Your task to perform on an android device: turn off javascript in the chrome app Image 0: 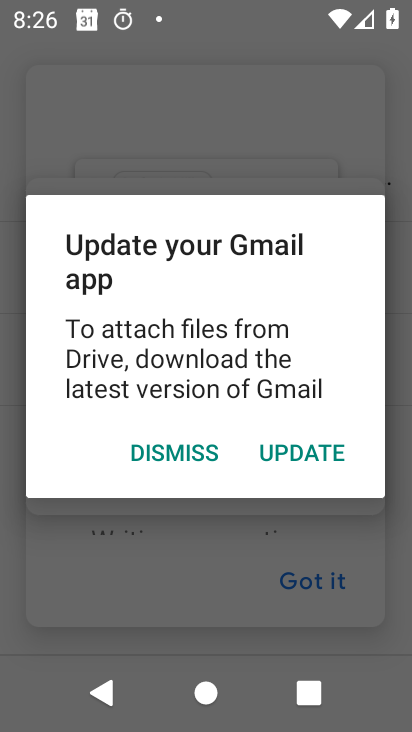
Step 0: press home button
Your task to perform on an android device: turn off javascript in the chrome app Image 1: 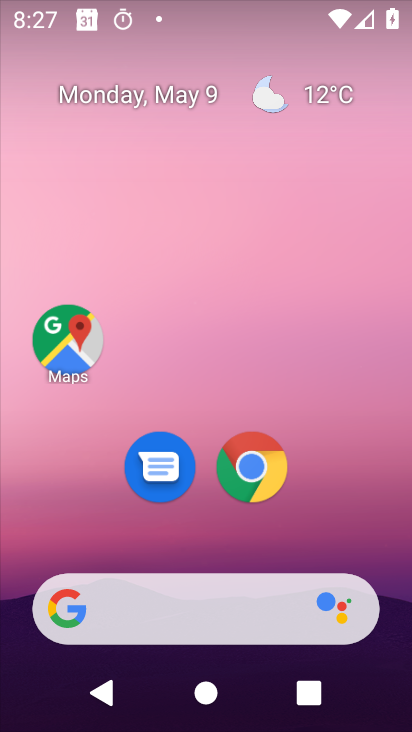
Step 1: click (248, 472)
Your task to perform on an android device: turn off javascript in the chrome app Image 2: 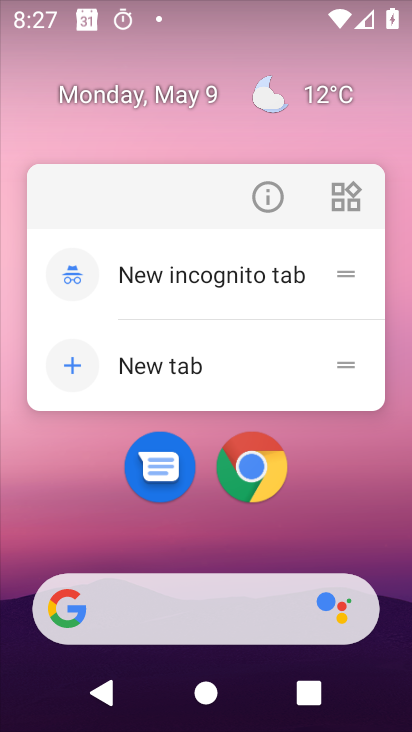
Step 2: click (257, 473)
Your task to perform on an android device: turn off javascript in the chrome app Image 3: 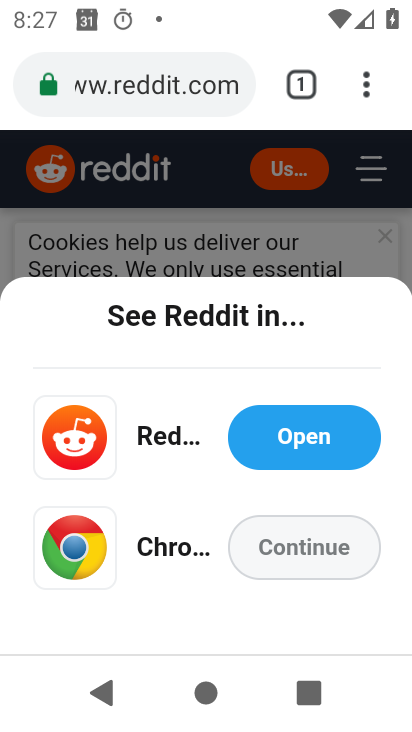
Step 3: click (368, 79)
Your task to perform on an android device: turn off javascript in the chrome app Image 4: 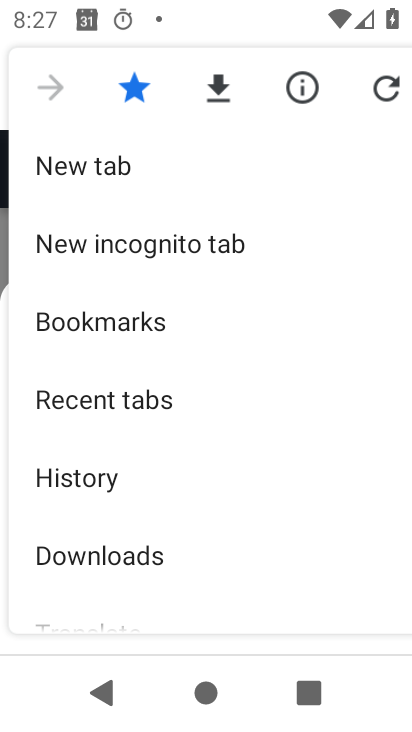
Step 4: drag from (248, 524) to (218, 199)
Your task to perform on an android device: turn off javascript in the chrome app Image 5: 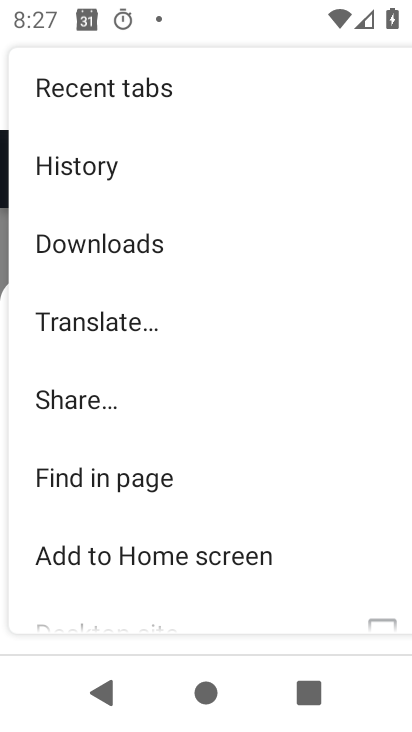
Step 5: drag from (218, 530) to (208, 204)
Your task to perform on an android device: turn off javascript in the chrome app Image 6: 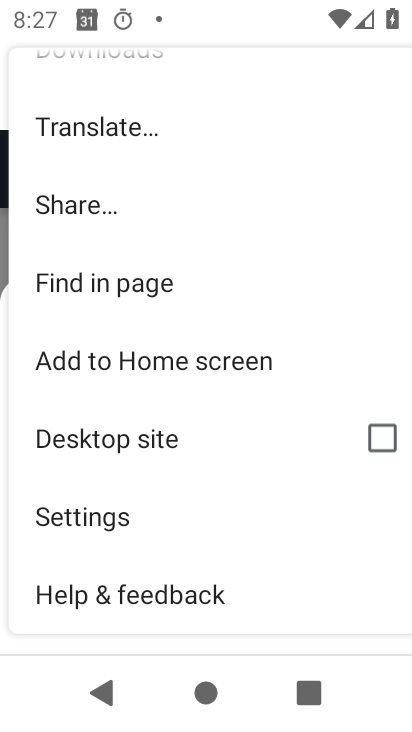
Step 6: click (96, 519)
Your task to perform on an android device: turn off javascript in the chrome app Image 7: 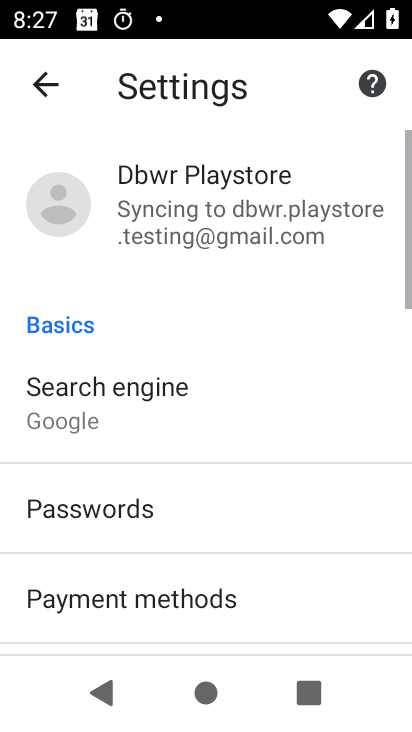
Step 7: drag from (232, 541) to (225, 219)
Your task to perform on an android device: turn off javascript in the chrome app Image 8: 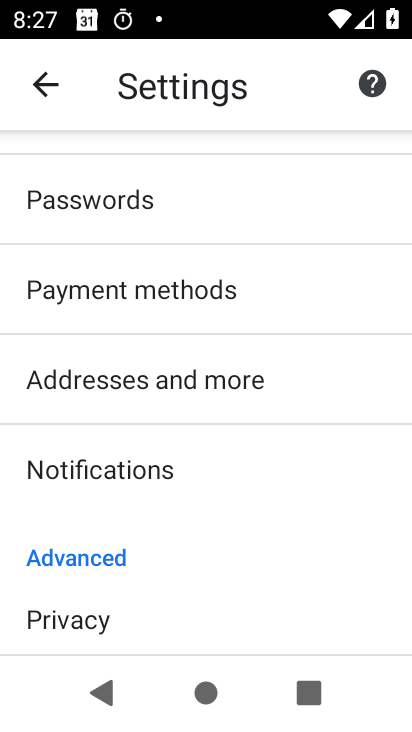
Step 8: drag from (238, 503) to (233, 204)
Your task to perform on an android device: turn off javascript in the chrome app Image 9: 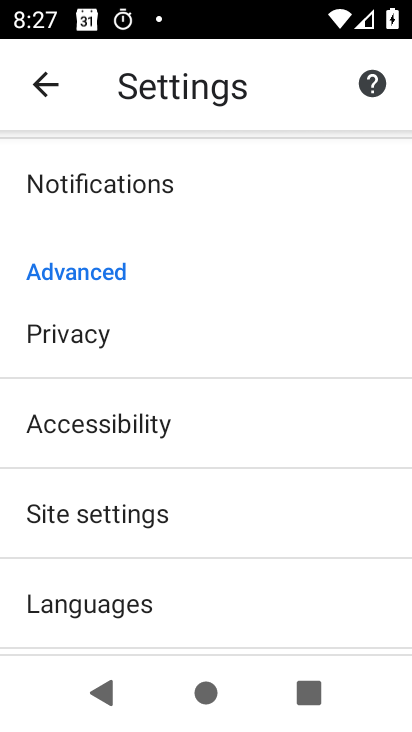
Step 9: click (142, 521)
Your task to perform on an android device: turn off javascript in the chrome app Image 10: 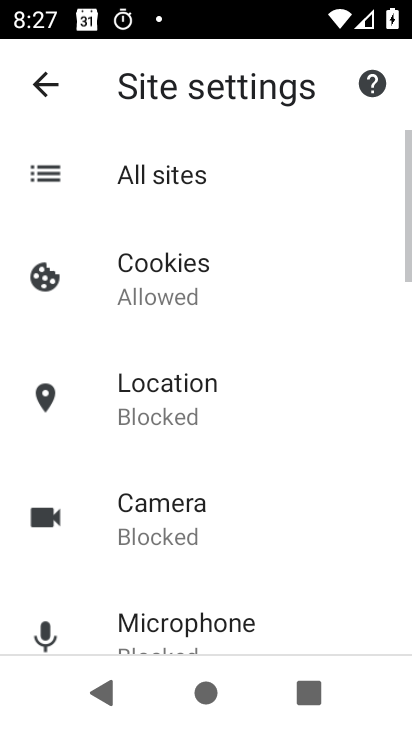
Step 10: drag from (261, 547) to (263, 192)
Your task to perform on an android device: turn off javascript in the chrome app Image 11: 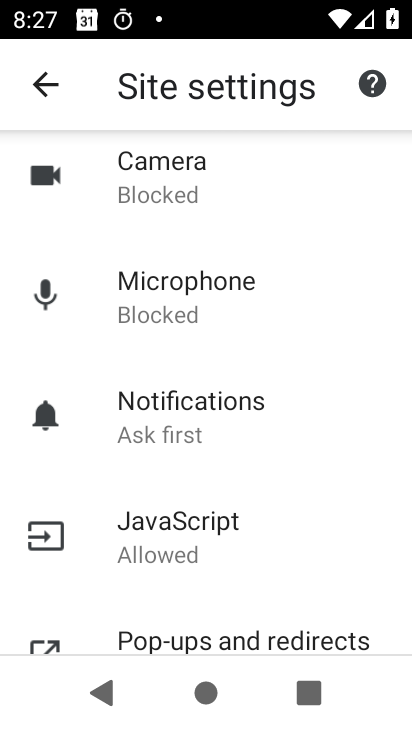
Step 11: click (150, 534)
Your task to perform on an android device: turn off javascript in the chrome app Image 12: 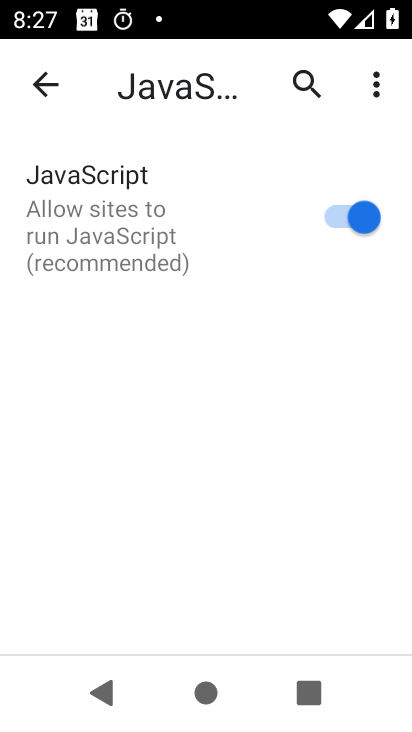
Step 12: click (354, 230)
Your task to perform on an android device: turn off javascript in the chrome app Image 13: 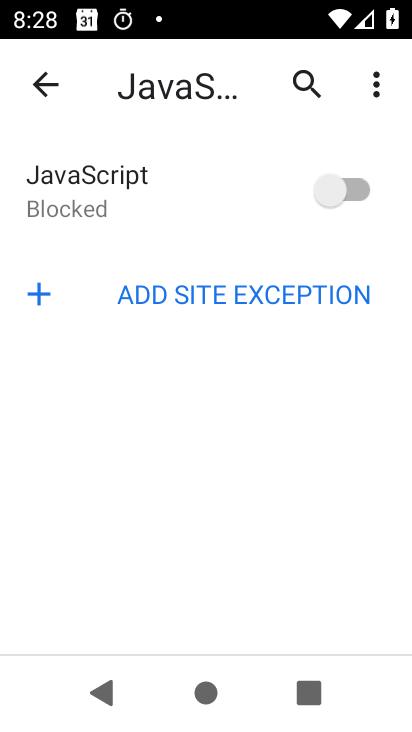
Step 13: task complete